Your task to perform on an android device: open chrome privacy settings Image 0: 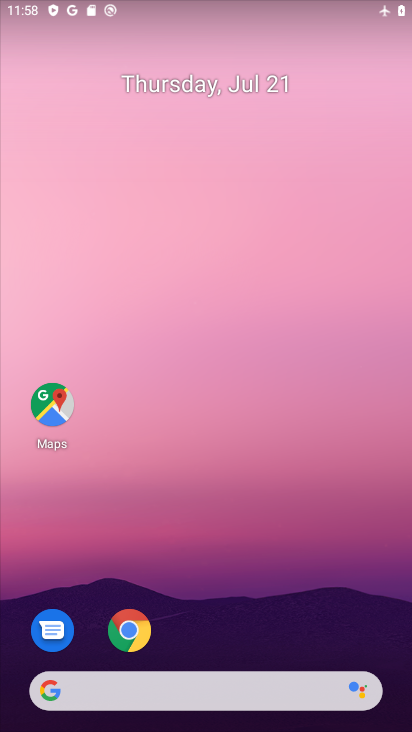
Step 0: drag from (236, 627) to (195, 31)
Your task to perform on an android device: open chrome privacy settings Image 1: 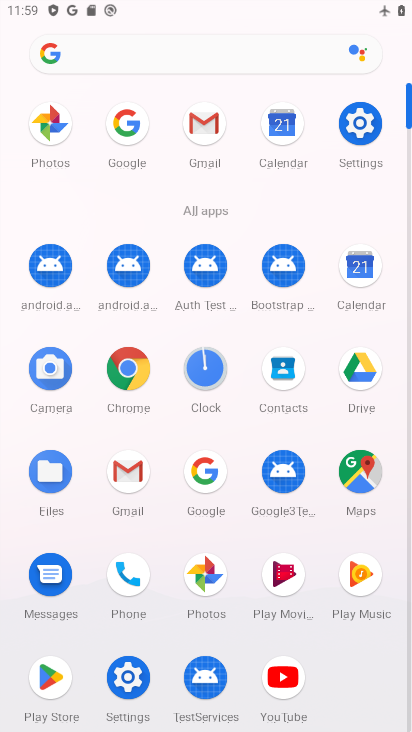
Step 1: click (129, 688)
Your task to perform on an android device: open chrome privacy settings Image 2: 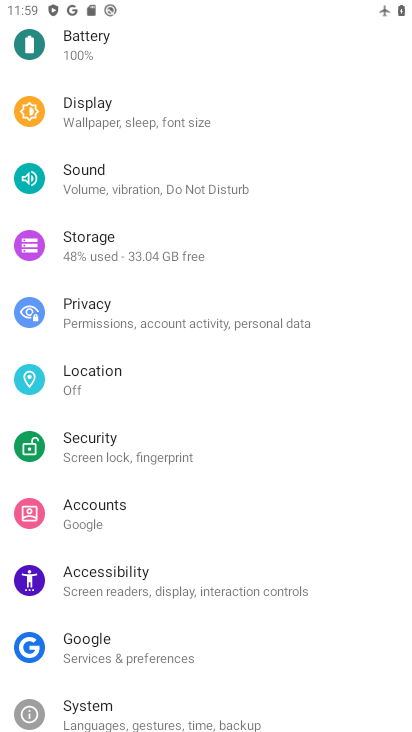
Step 2: press home button
Your task to perform on an android device: open chrome privacy settings Image 3: 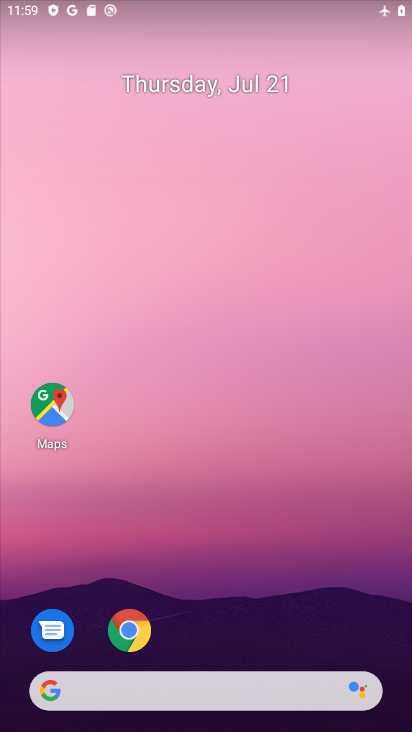
Step 3: click (118, 619)
Your task to perform on an android device: open chrome privacy settings Image 4: 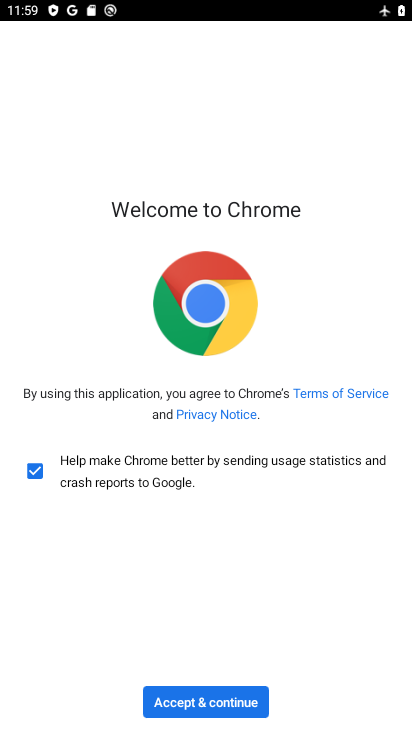
Step 4: click (191, 690)
Your task to perform on an android device: open chrome privacy settings Image 5: 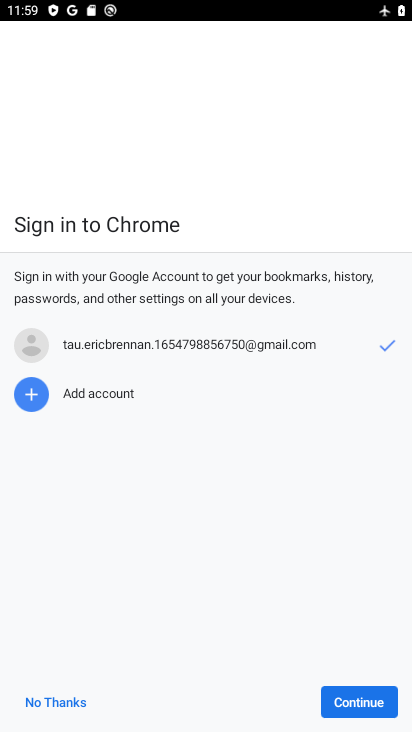
Step 5: click (344, 701)
Your task to perform on an android device: open chrome privacy settings Image 6: 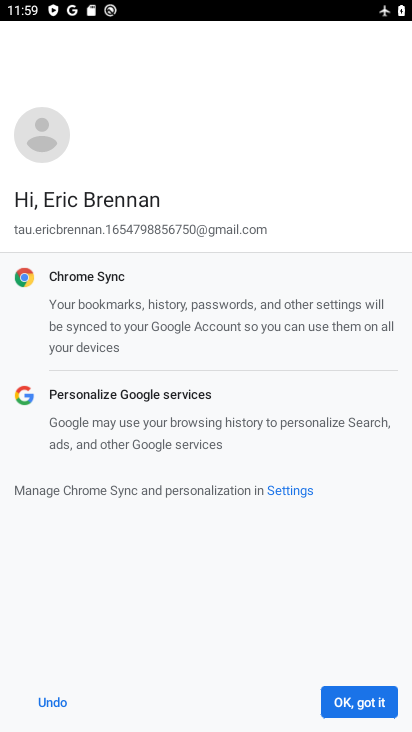
Step 6: click (343, 696)
Your task to perform on an android device: open chrome privacy settings Image 7: 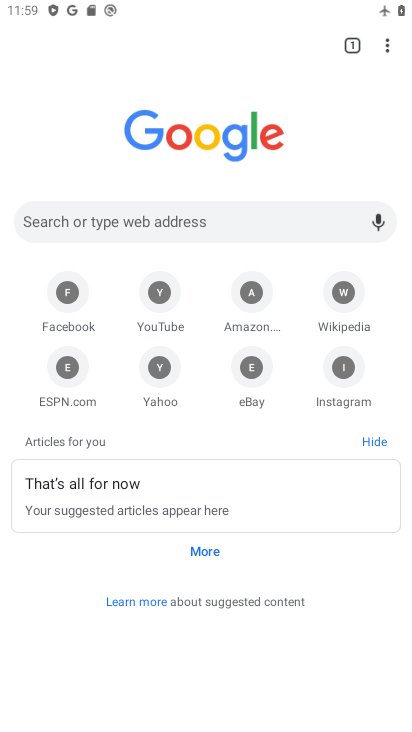
Step 7: click (388, 50)
Your task to perform on an android device: open chrome privacy settings Image 8: 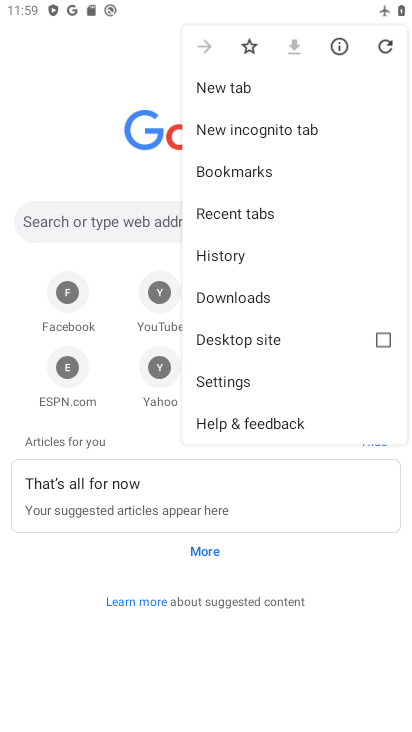
Step 8: click (238, 378)
Your task to perform on an android device: open chrome privacy settings Image 9: 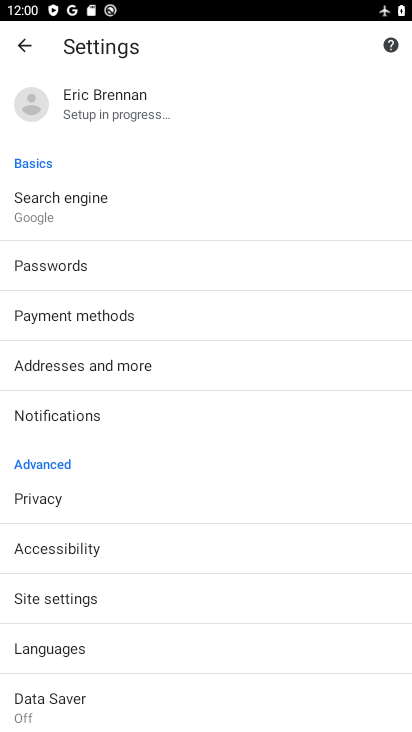
Step 9: drag from (123, 642) to (73, 201)
Your task to perform on an android device: open chrome privacy settings Image 10: 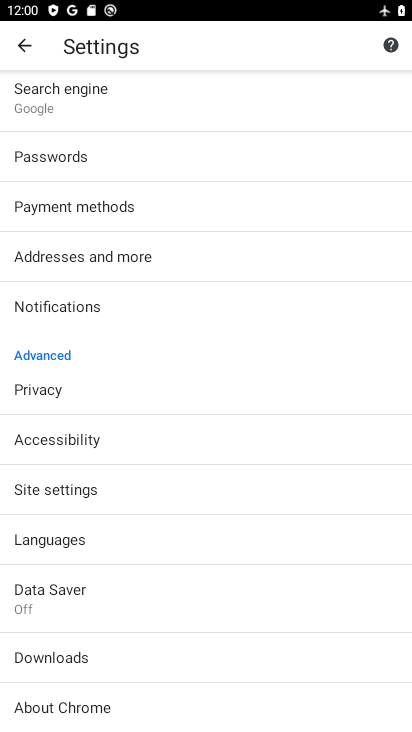
Step 10: click (57, 385)
Your task to perform on an android device: open chrome privacy settings Image 11: 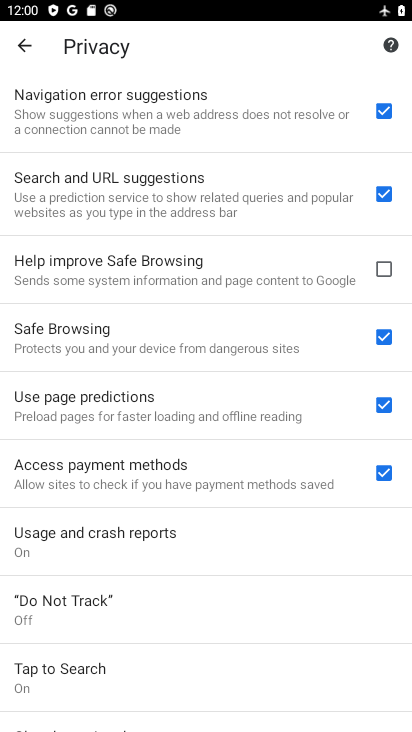
Step 11: task complete